Your task to perform on an android device: read, delete, or share a saved page in the chrome app Image 0: 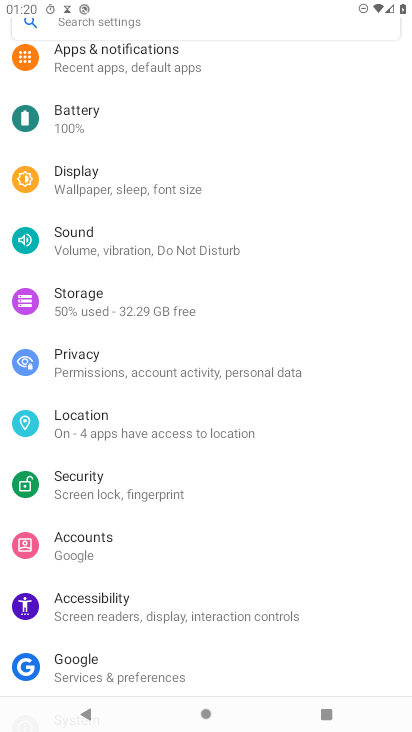
Step 0: press home button
Your task to perform on an android device: read, delete, or share a saved page in the chrome app Image 1: 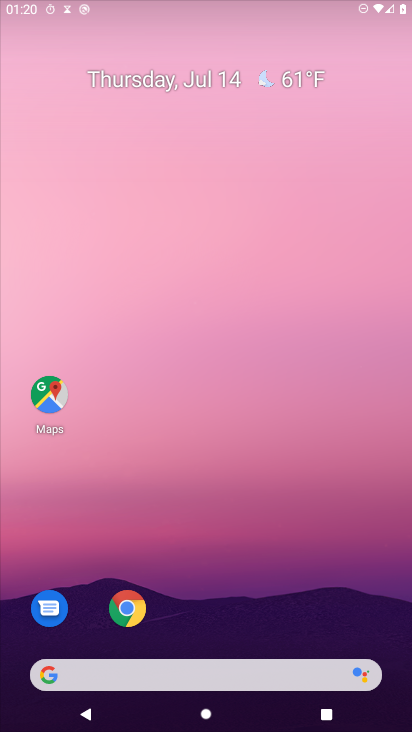
Step 1: drag from (224, 628) to (246, 0)
Your task to perform on an android device: read, delete, or share a saved page in the chrome app Image 2: 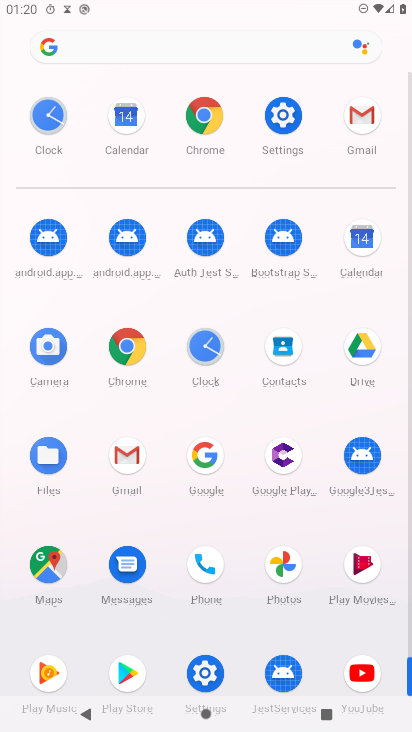
Step 2: click (201, 118)
Your task to perform on an android device: read, delete, or share a saved page in the chrome app Image 3: 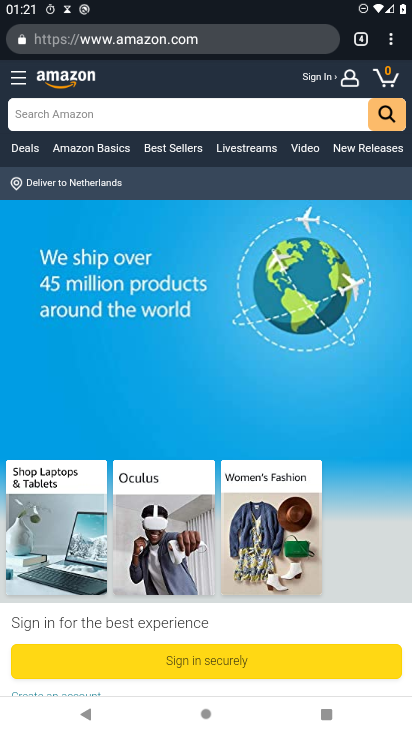
Step 3: click (384, 41)
Your task to perform on an android device: read, delete, or share a saved page in the chrome app Image 4: 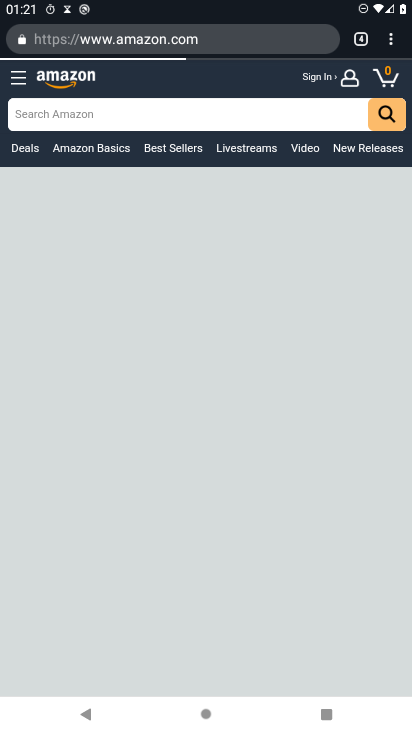
Step 4: drag from (384, 43) to (284, 260)
Your task to perform on an android device: read, delete, or share a saved page in the chrome app Image 5: 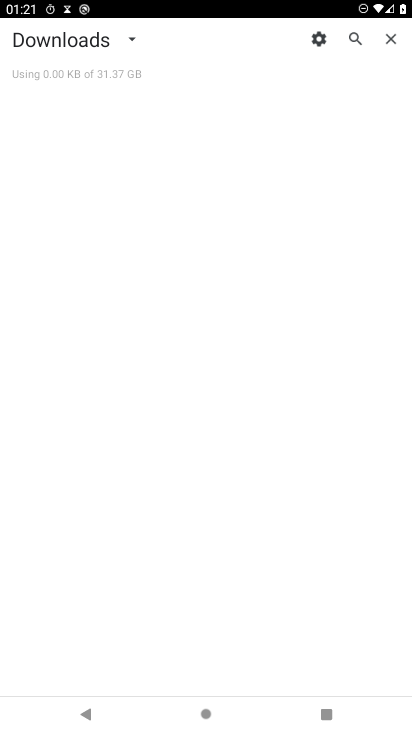
Step 5: click (128, 30)
Your task to perform on an android device: read, delete, or share a saved page in the chrome app Image 6: 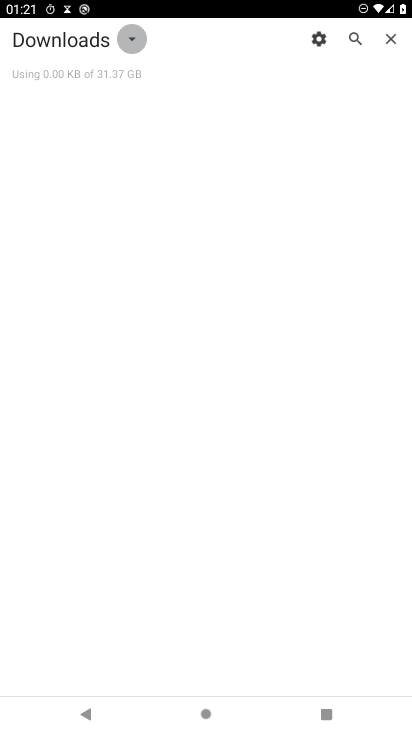
Step 6: click (128, 33)
Your task to perform on an android device: read, delete, or share a saved page in the chrome app Image 7: 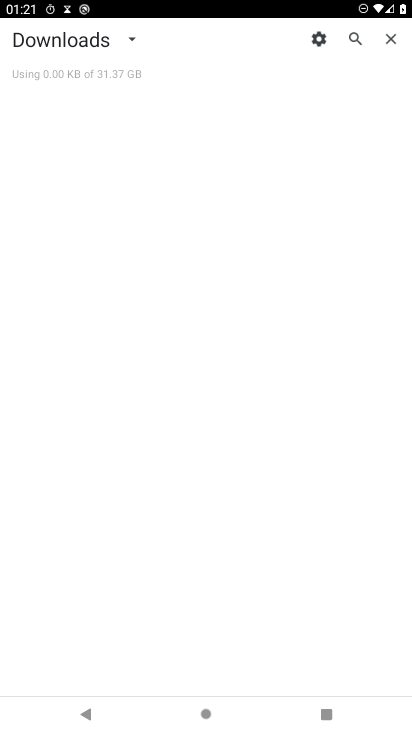
Step 7: click (131, 39)
Your task to perform on an android device: read, delete, or share a saved page in the chrome app Image 8: 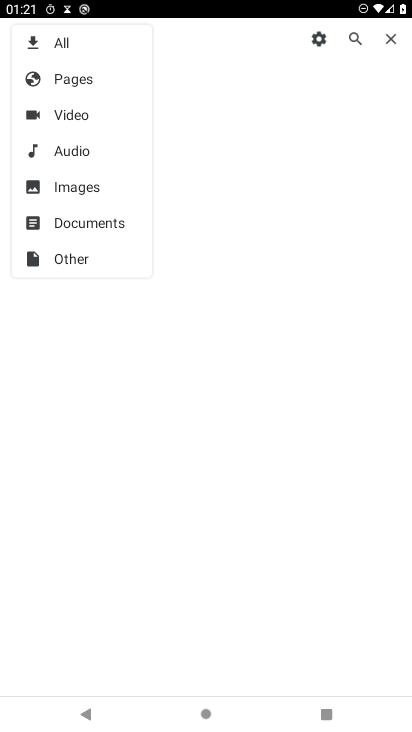
Step 8: click (70, 82)
Your task to perform on an android device: read, delete, or share a saved page in the chrome app Image 9: 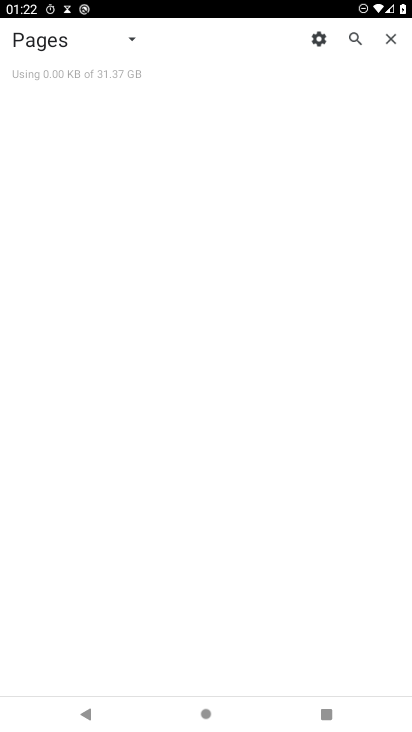
Step 9: click (128, 37)
Your task to perform on an android device: read, delete, or share a saved page in the chrome app Image 10: 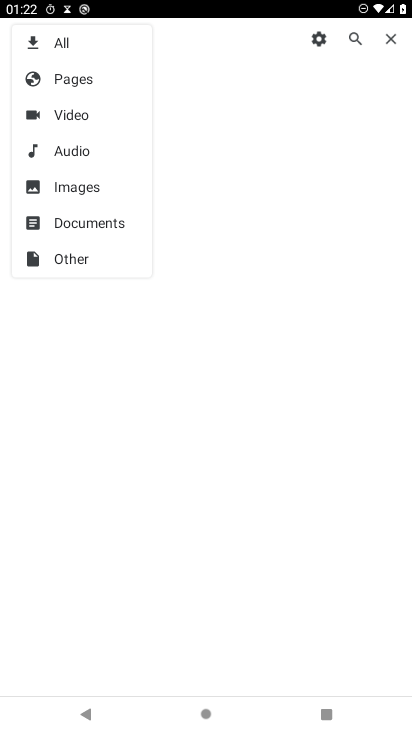
Step 10: click (101, 48)
Your task to perform on an android device: read, delete, or share a saved page in the chrome app Image 11: 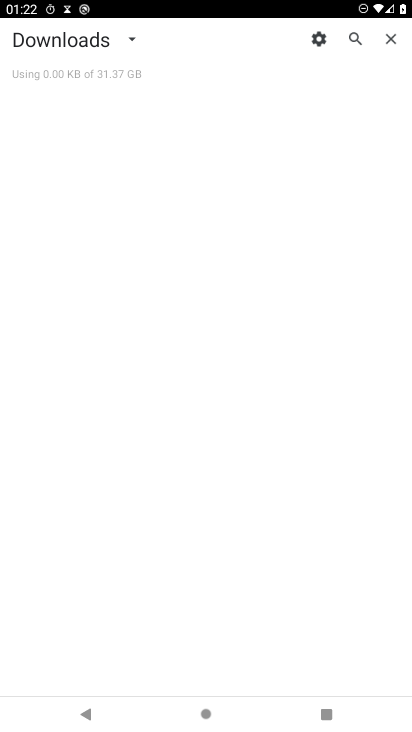
Step 11: task complete